Your task to perform on an android device: toggle translation in the chrome app Image 0: 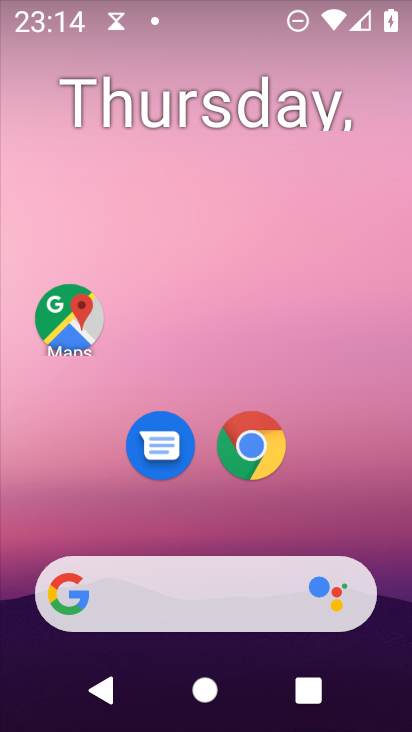
Step 0: click (254, 443)
Your task to perform on an android device: toggle translation in the chrome app Image 1: 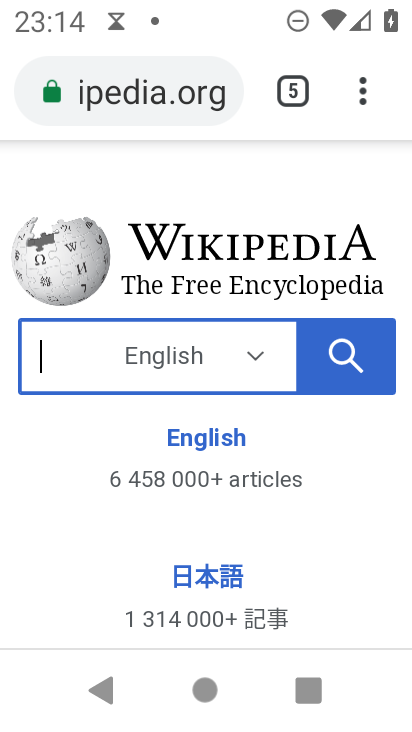
Step 1: click (364, 99)
Your task to perform on an android device: toggle translation in the chrome app Image 2: 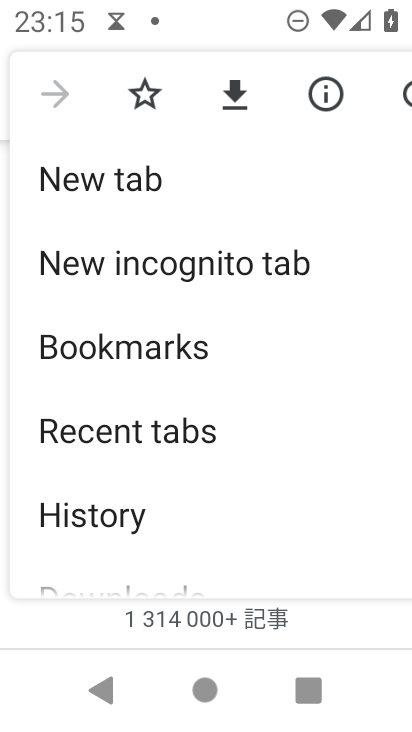
Step 2: drag from (130, 554) to (136, 142)
Your task to perform on an android device: toggle translation in the chrome app Image 3: 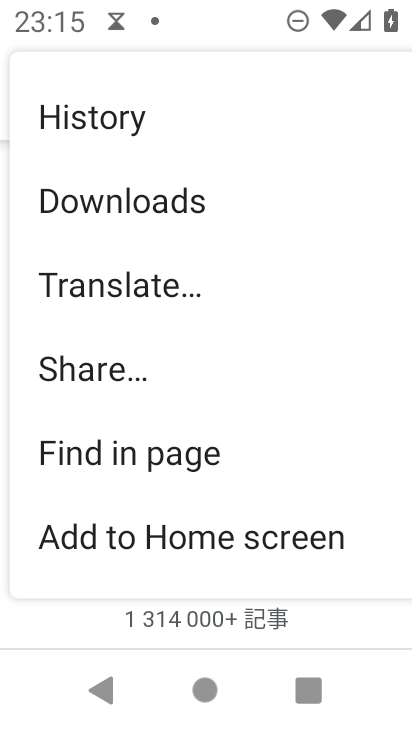
Step 3: drag from (133, 562) to (150, 142)
Your task to perform on an android device: toggle translation in the chrome app Image 4: 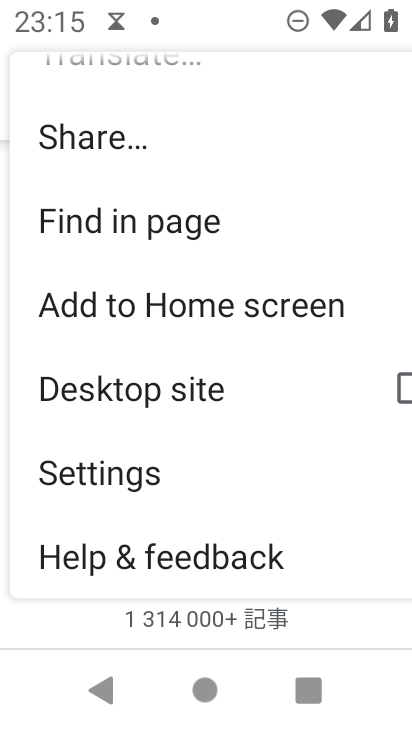
Step 4: click (86, 473)
Your task to perform on an android device: toggle translation in the chrome app Image 5: 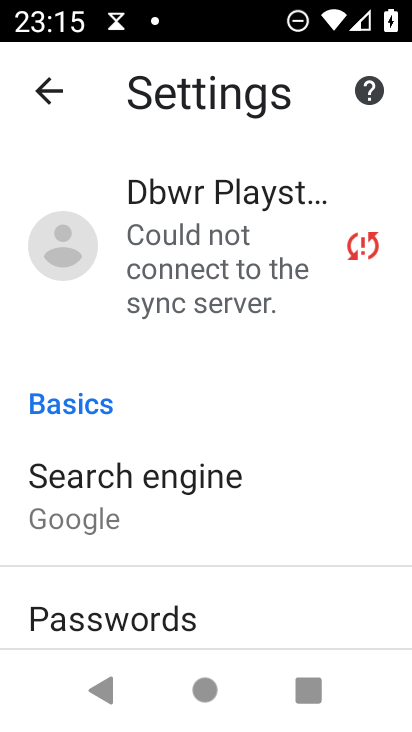
Step 5: drag from (150, 652) to (158, 210)
Your task to perform on an android device: toggle translation in the chrome app Image 6: 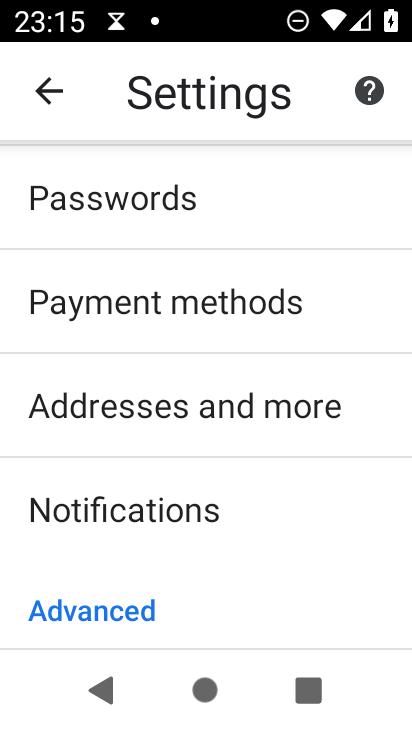
Step 6: drag from (200, 613) to (218, 147)
Your task to perform on an android device: toggle translation in the chrome app Image 7: 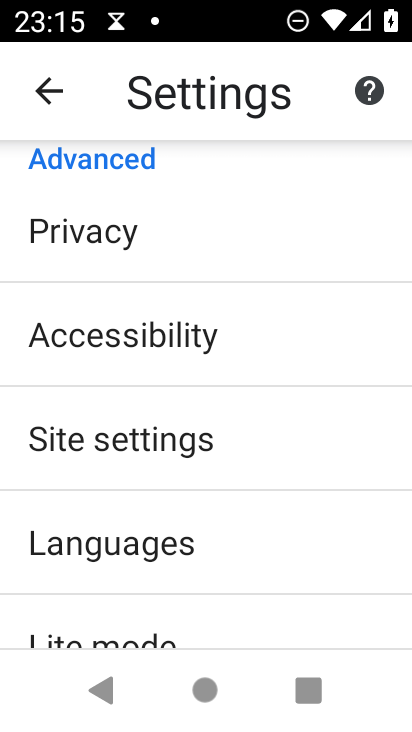
Step 7: drag from (211, 630) to (219, 172)
Your task to perform on an android device: toggle translation in the chrome app Image 8: 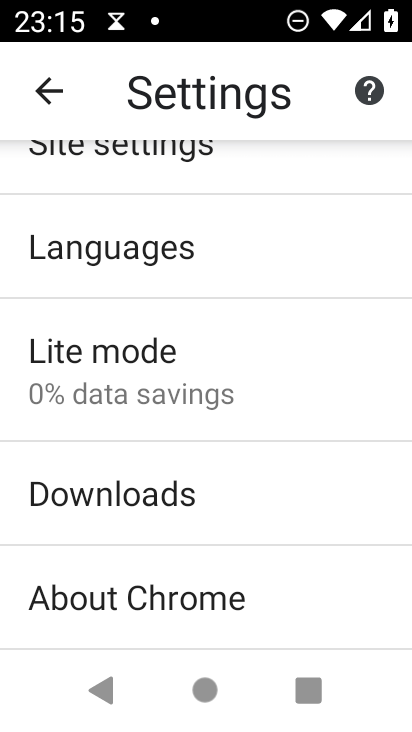
Step 8: click (148, 250)
Your task to perform on an android device: toggle translation in the chrome app Image 9: 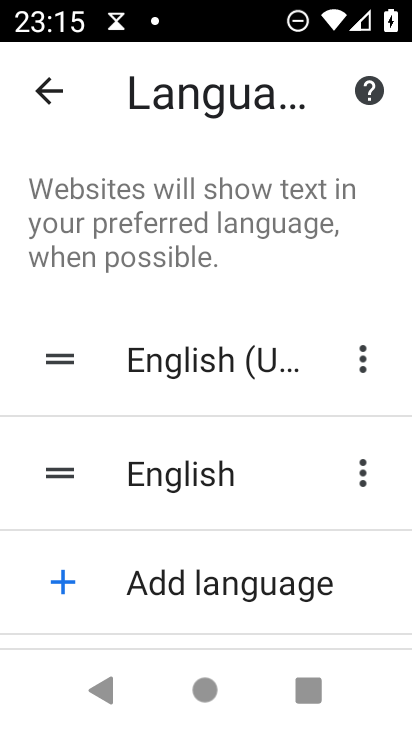
Step 9: drag from (221, 627) to (224, 265)
Your task to perform on an android device: toggle translation in the chrome app Image 10: 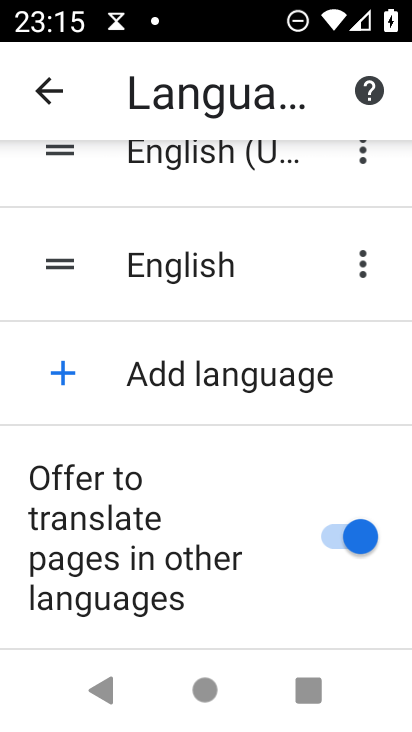
Step 10: drag from (199, 636) to (200, 354)
Your task to perform on an android device: toggle translation in the chrome app Image 11: 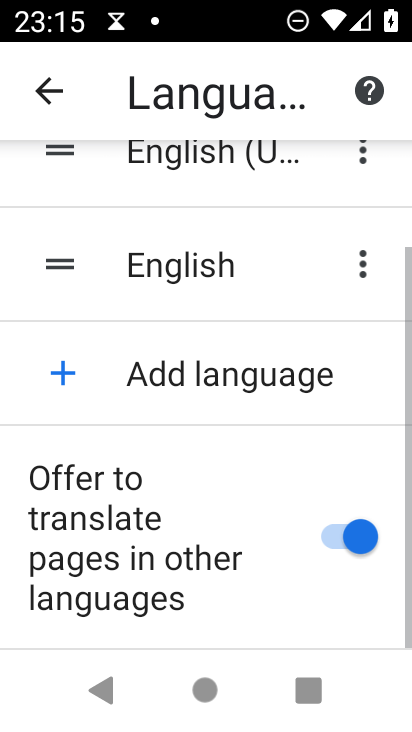
Step 11: click (321, 538)
Your task to perform on an android device: toggle translation in the chrome app Image 12: 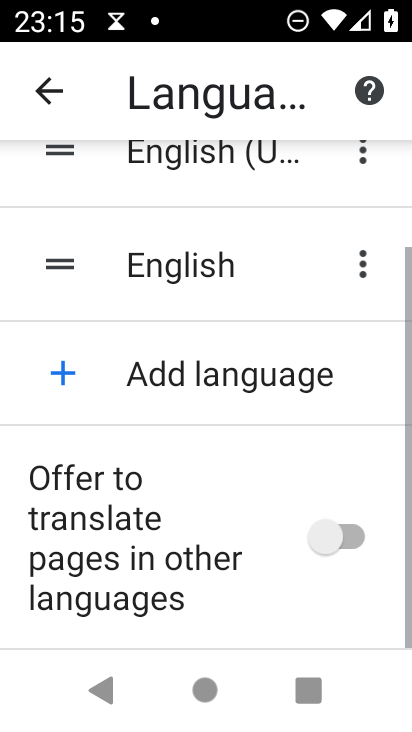
Step 12: task complete